Your task to perform on an android device: open sync settings in chrome Image 0: 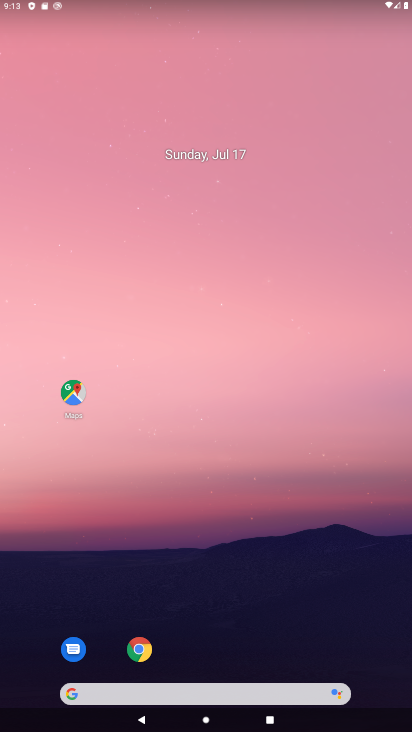
Step 0: click (145, 651)
Your task to perform on an android device: open sync settings in chrome Image 1: 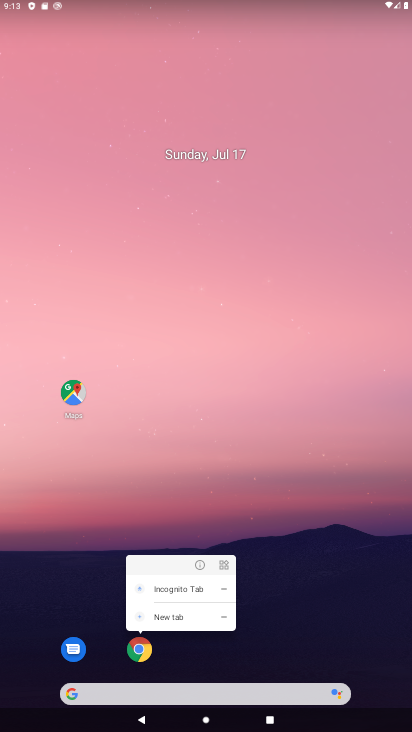
Step 1: click (146, 653)
Your task to perform on an android device: open sync settings in chrome Image 2: 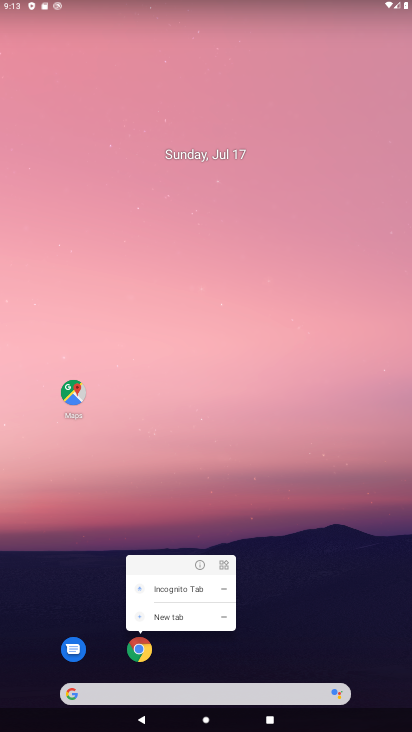
Step 2: click (134, 656)
Your task to perform on an android device: open sync settings in chrome Image 3: 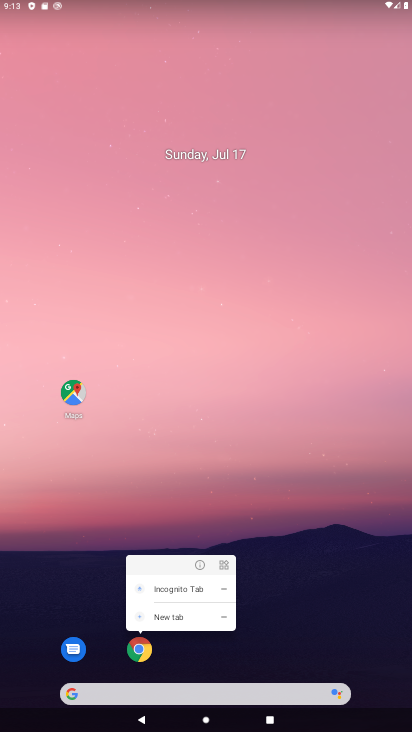
Step 3: click (132, 636)
Your task to perform on an android device: open sync settings in chrome Image 4: 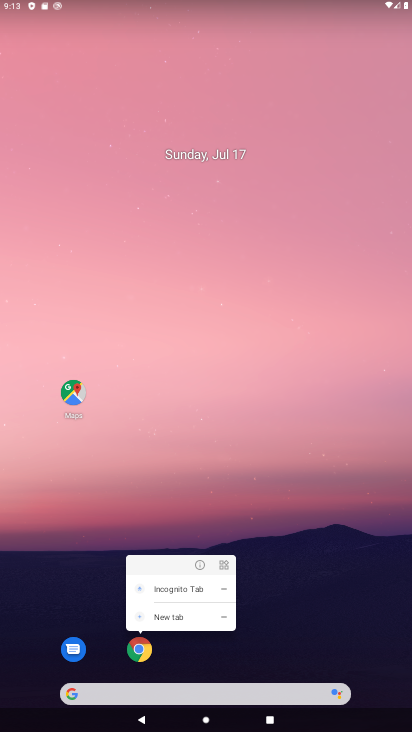
Step 4: click (131, 652)
Your task to perform on an android device: open sync settings in chrome Image 5: 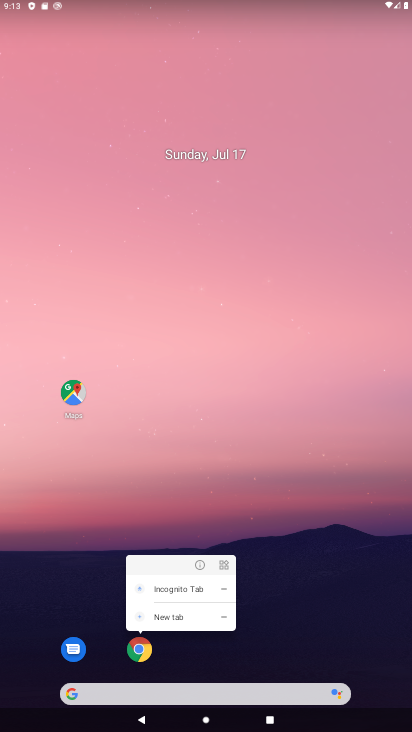
Step 5: task complete